Your task to perform on an android device: open app "DuckDuckGo Privacy Browser" Image 0: 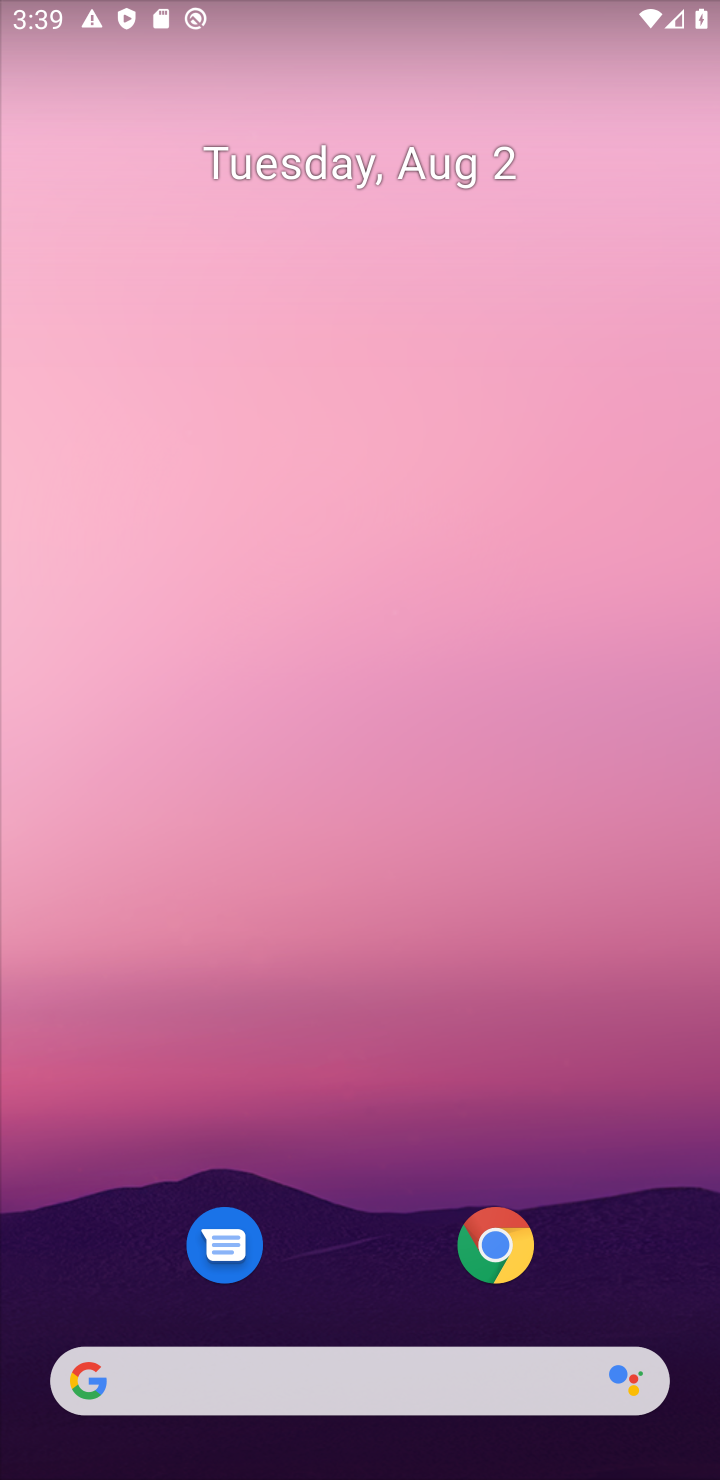
Step 0: drag from (354, 1216) to (141, 507)
Your task to perform on an android device: open app "DuckDuckGo Privacy Browser" Image 1: 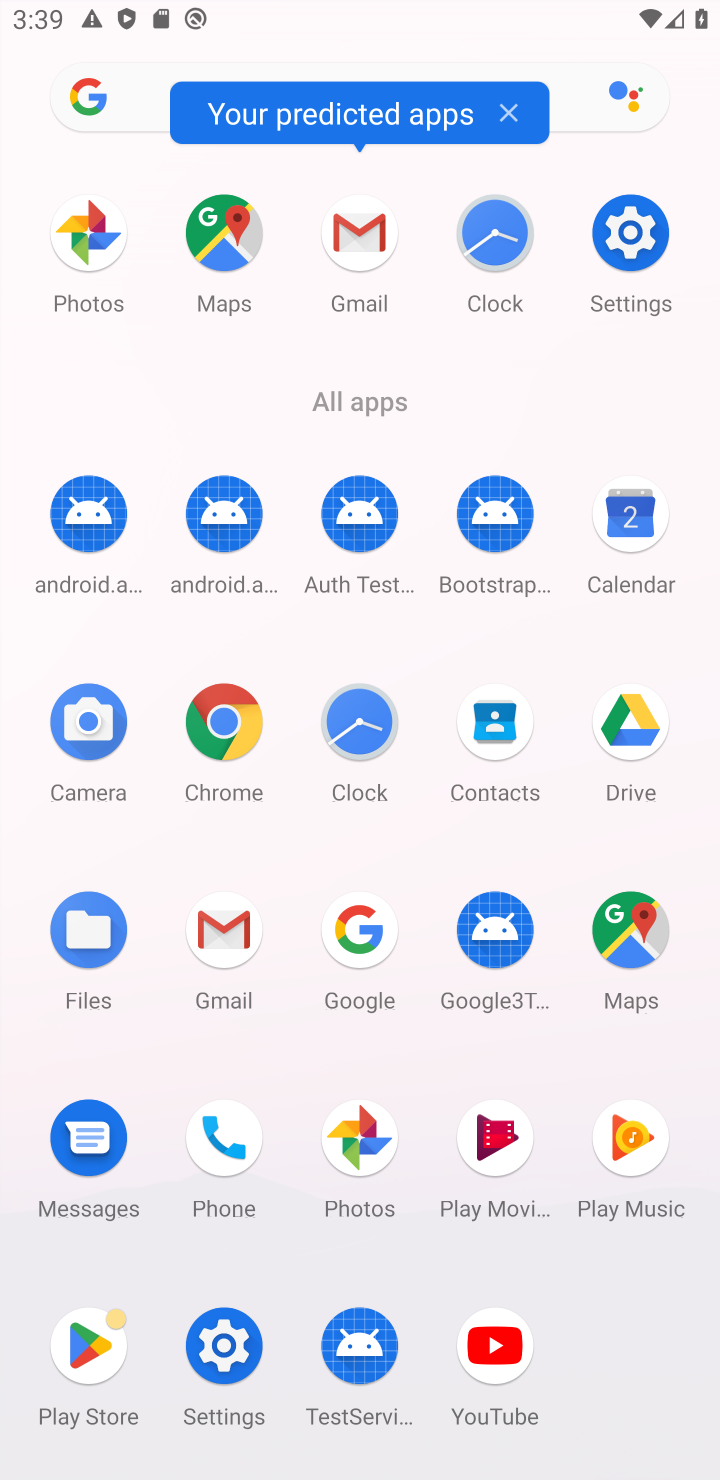
Step 1: click (87, 1345)
Your task to perform on an android device: open app "DuckDuckGo Privacy Browser" Image 2: 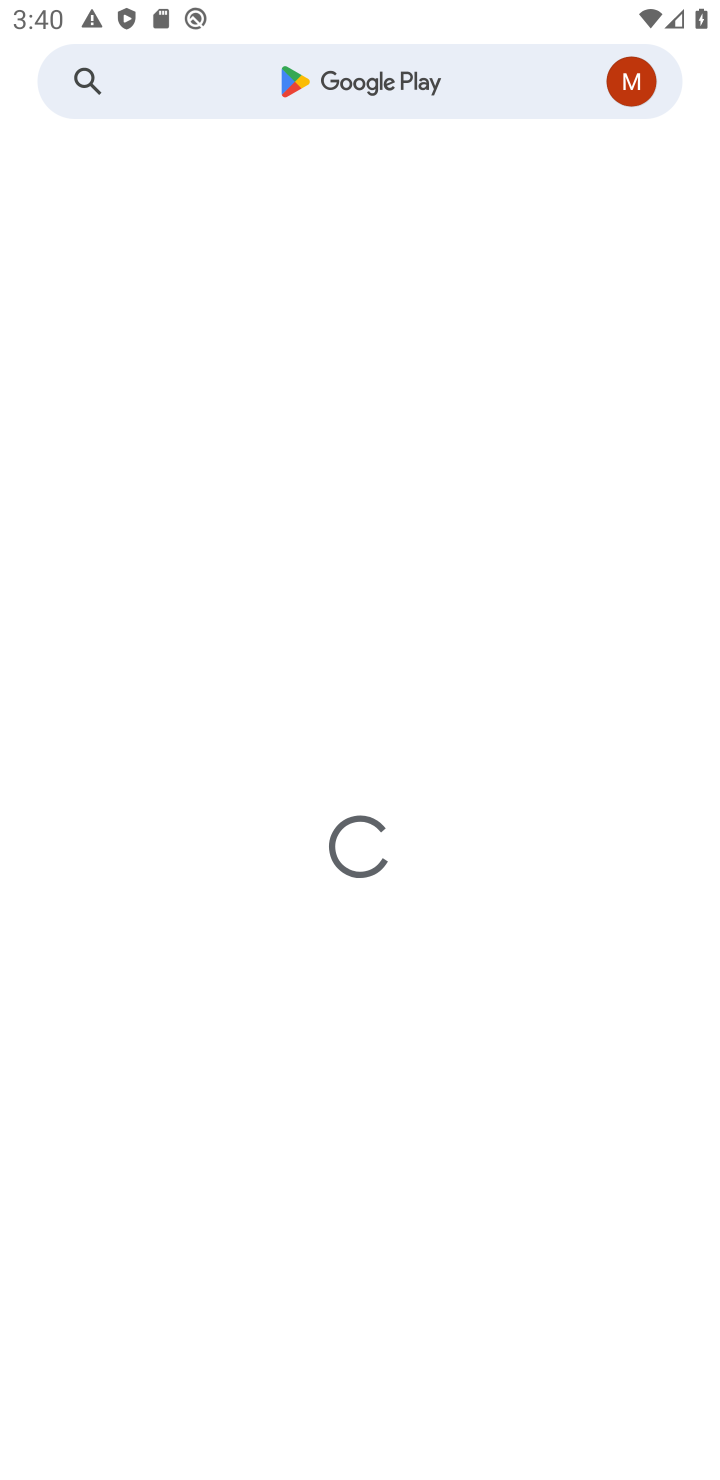
Step 2: click (245, 79)
Your task to perform on an android device: open app "DuckDuckGo Privacy Browser" Image 3: 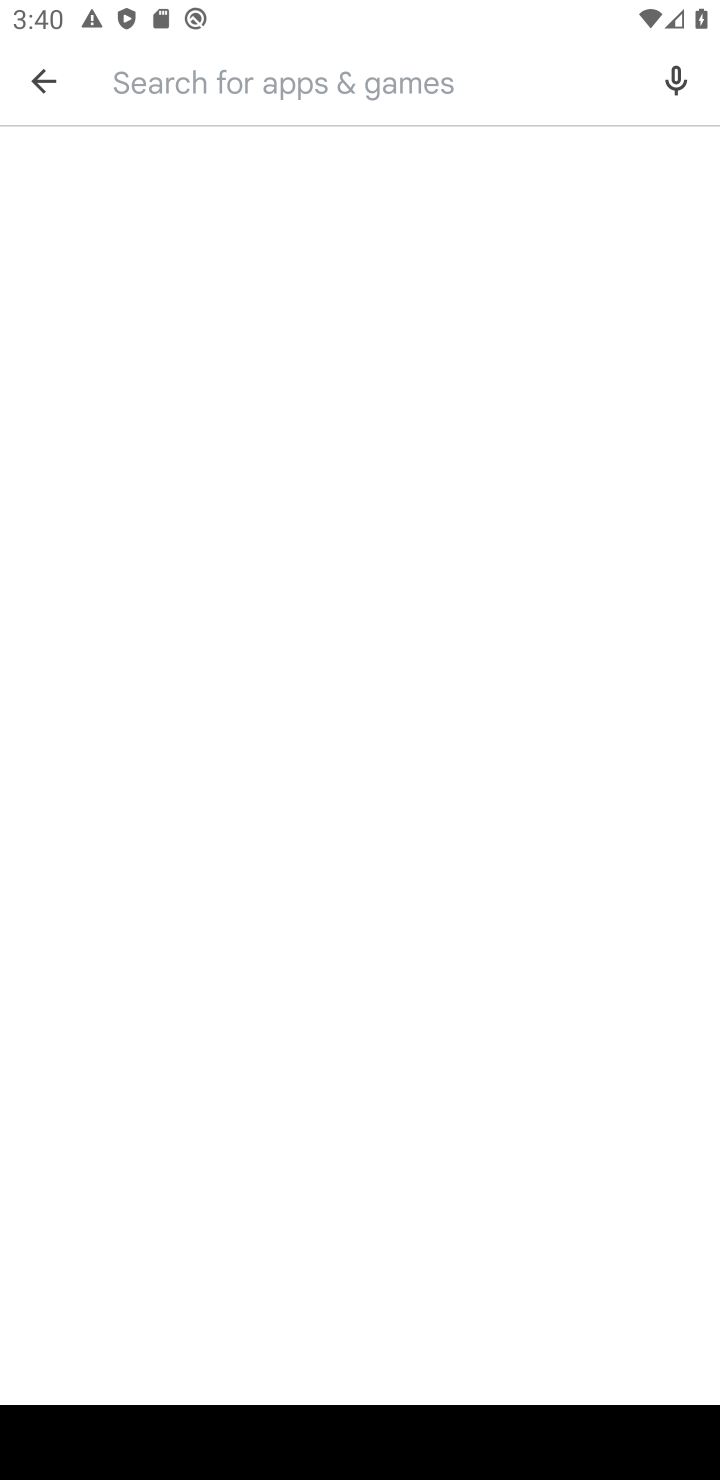
Step 3: type "DuckDuckGo Privacy Browser"
Your task to perform on an android device: open app "DuckDuckGo Privacy Browser" Image 4: 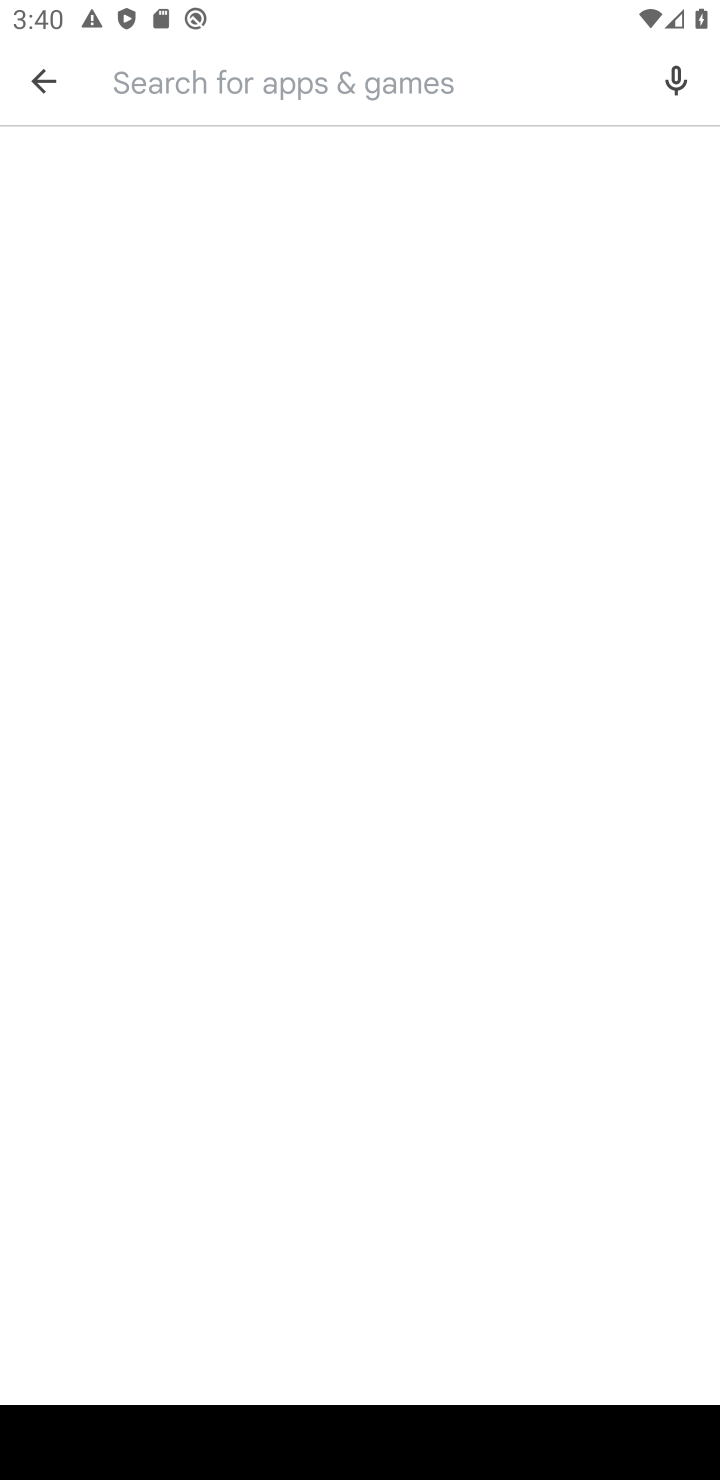
Step 4: click (232, 80)
Your task to perform on an android device: open app "DuckDuckGo Privacy Browser" Image 5: 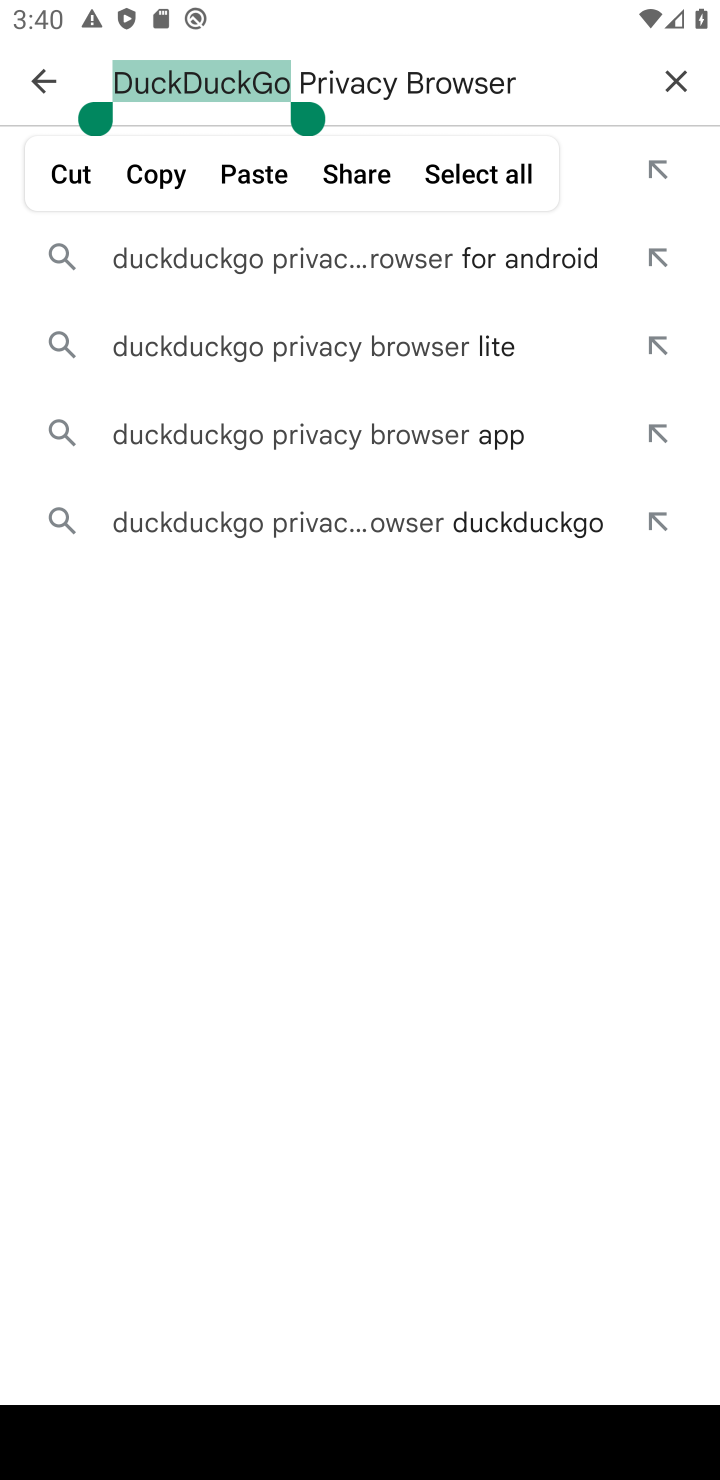
Step 5: click (515, 88)
Your task to perform on an android device: open app "DuckDuckGo Privacy Browser" Image 6: 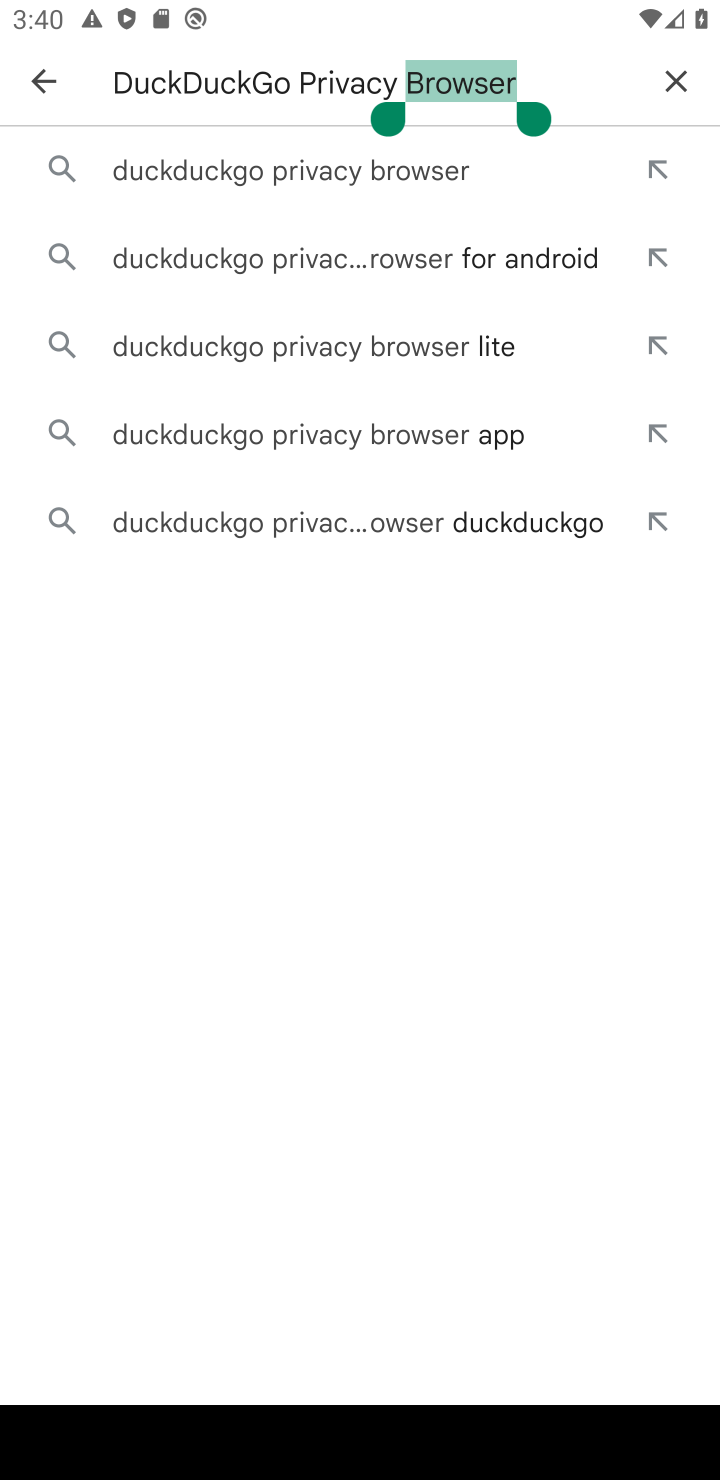
Step 6: click (493, 72)
Your task to perform on an android device: open app "DuckDuckGo Privacy Browser" Image 7: 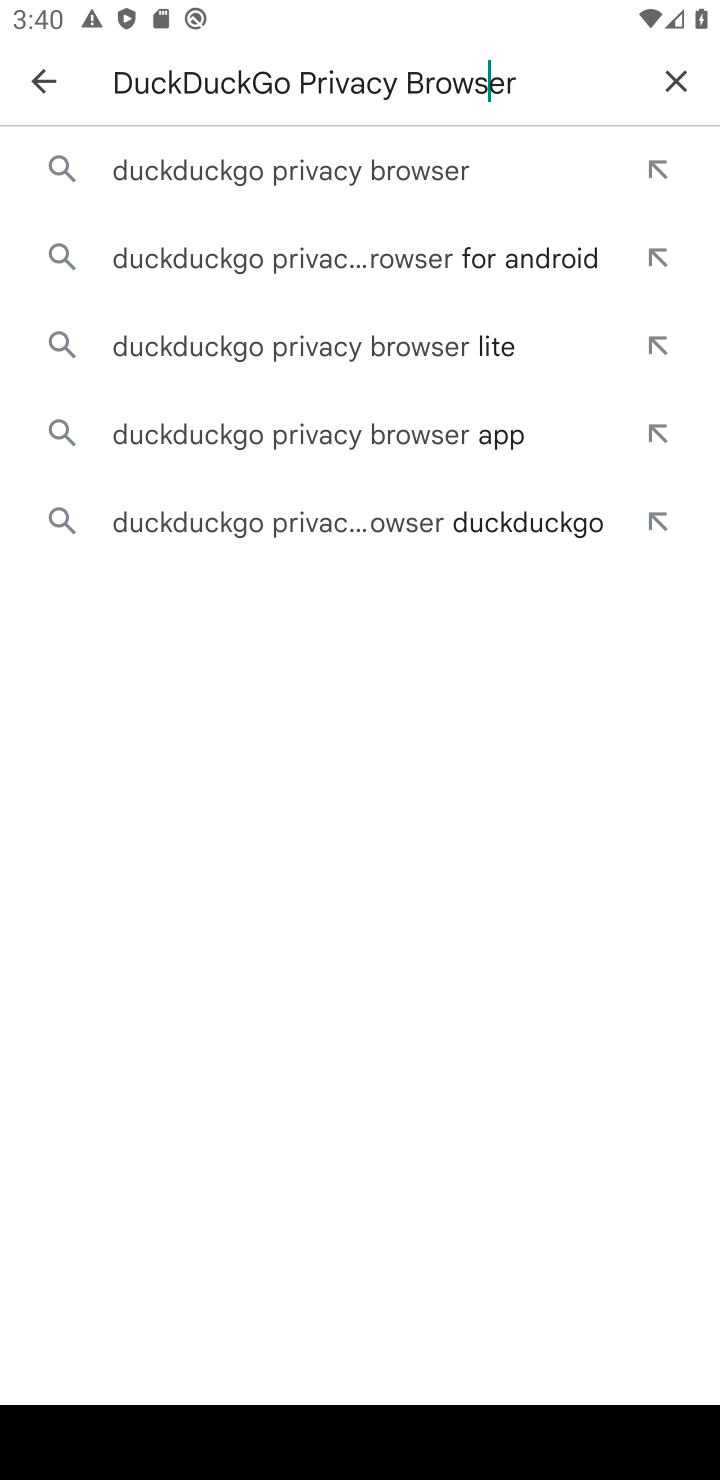
Step 7: click (318, 84)
Your task to perform on an android device: open app "DuckDuckGo Privacy Browser" Image 8: 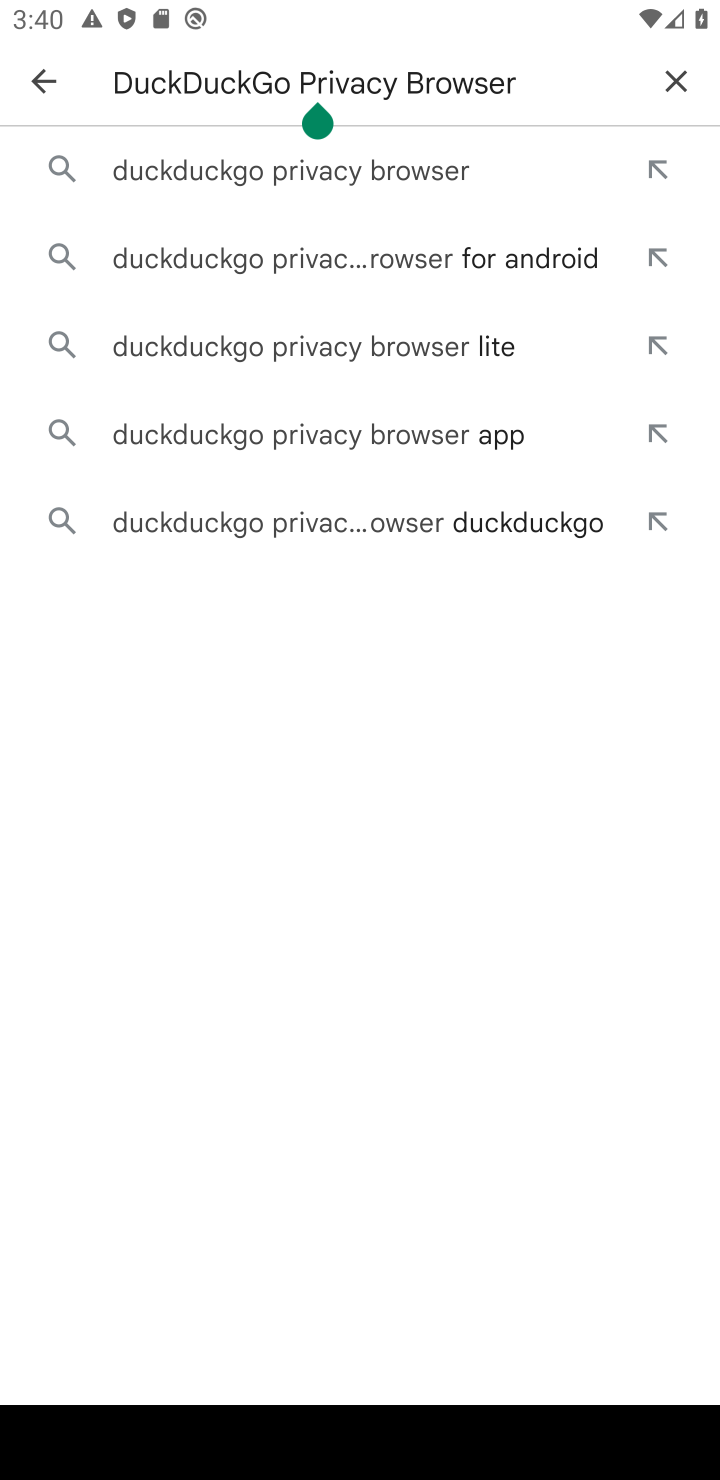
Step 8: click (305, 163)
Your task to perform on an android device: open app "DuckDuckGo Privacy Browser" Image 9: 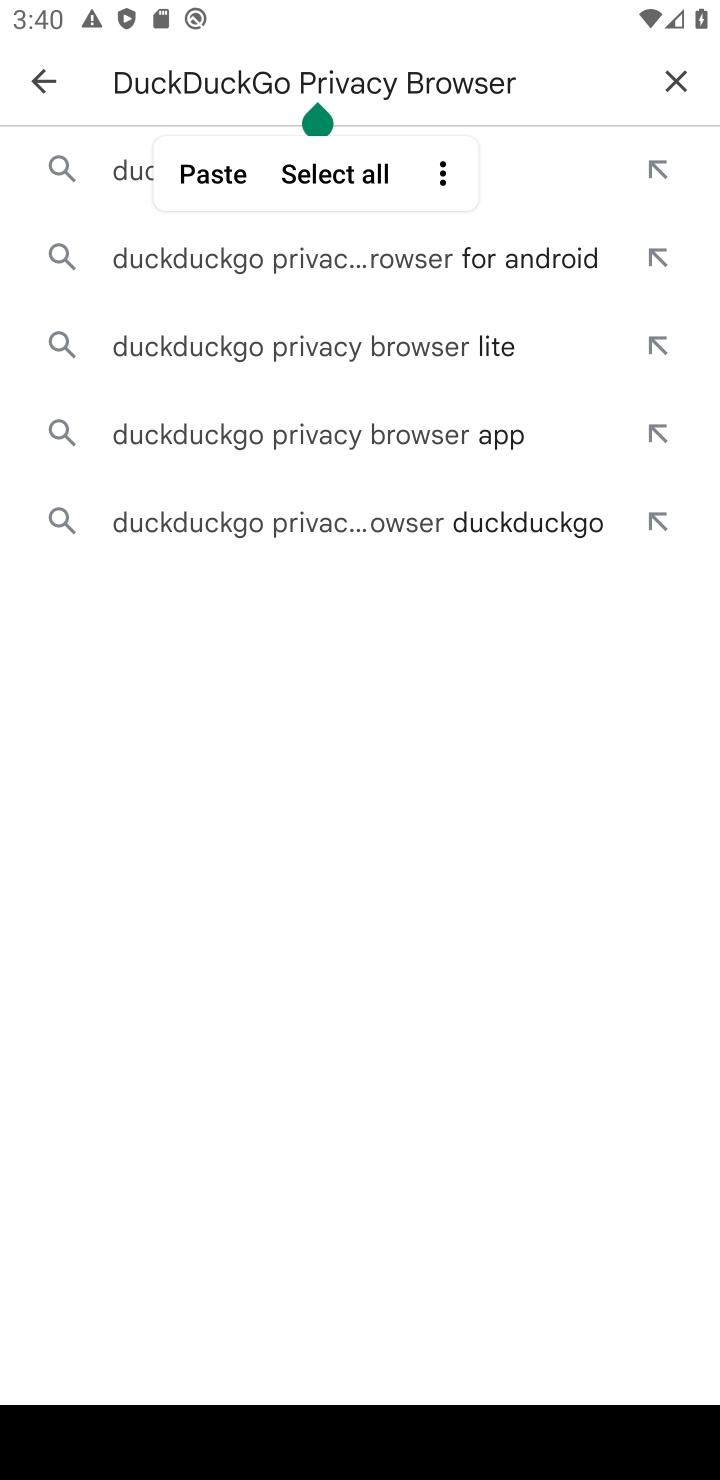
Step 9: click (132, 179)
Your task to perform on an android device: open app "DuckDuckGo Privacy Browser" Image 10: 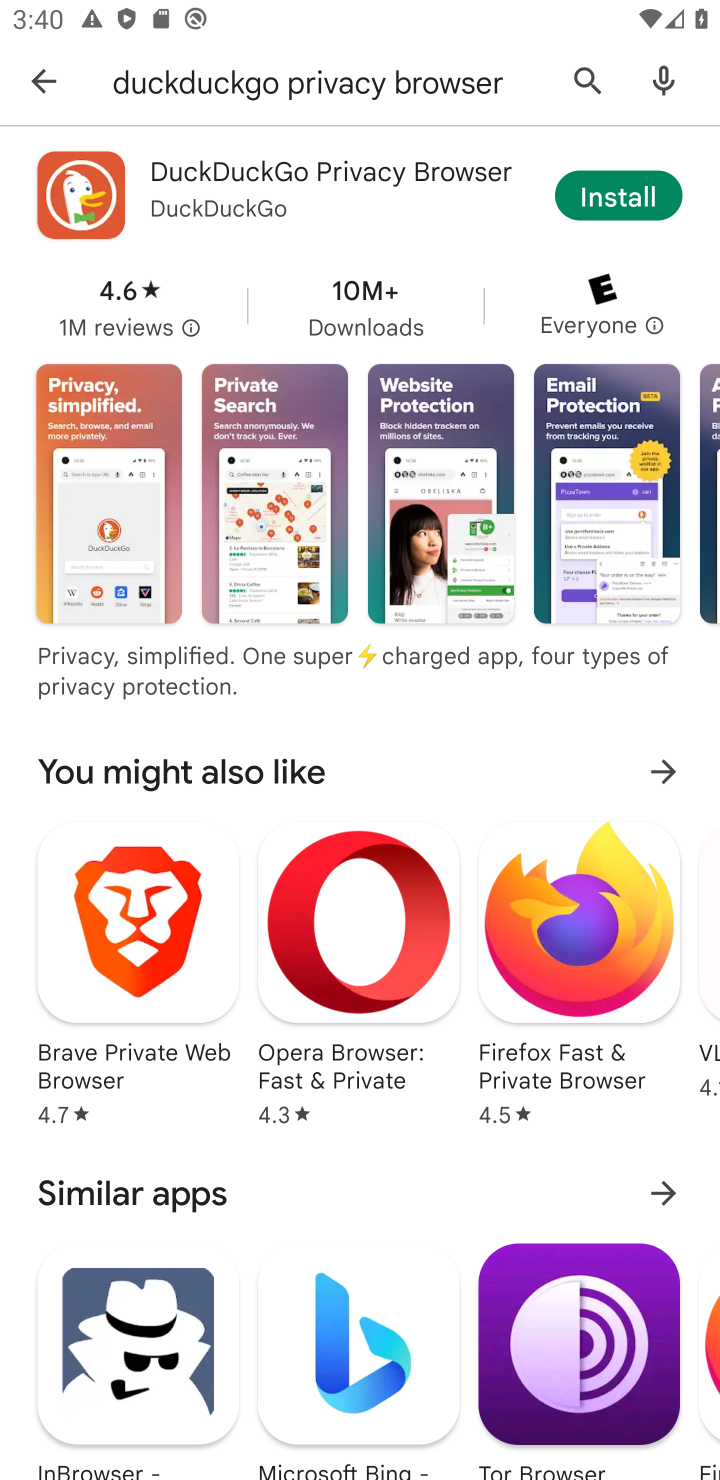
Step 10: task complete